Your task to perform on an android device: Go to internet settings Image 0: 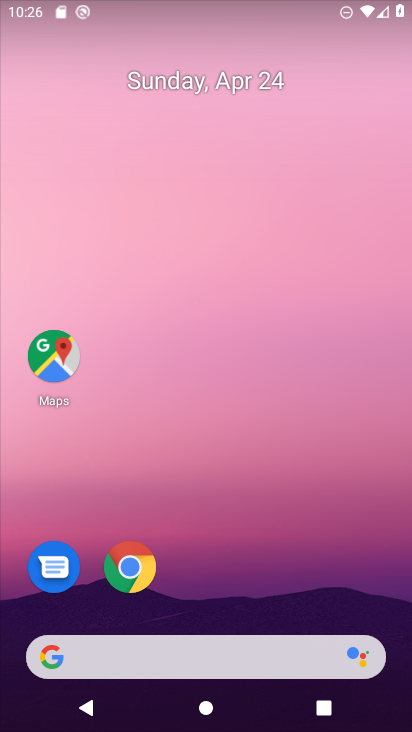
Step 0: drag from (134, 614) to (183, 218)
Your task to perform on an android device: Go to internet settings Image 1: 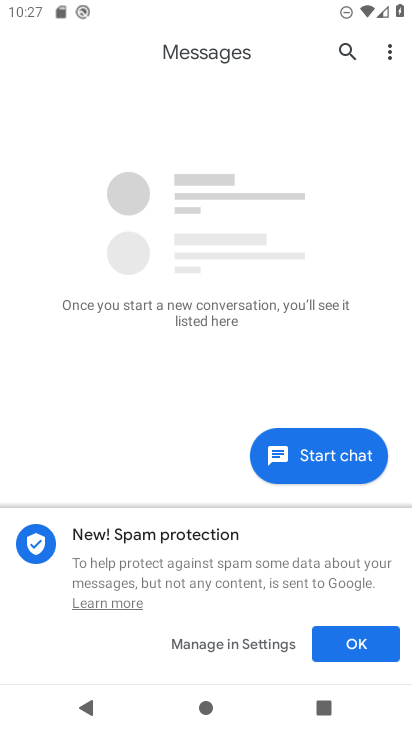
Step 1: press home button
Your task to perform on an android device: Go to internet settings Image 2: 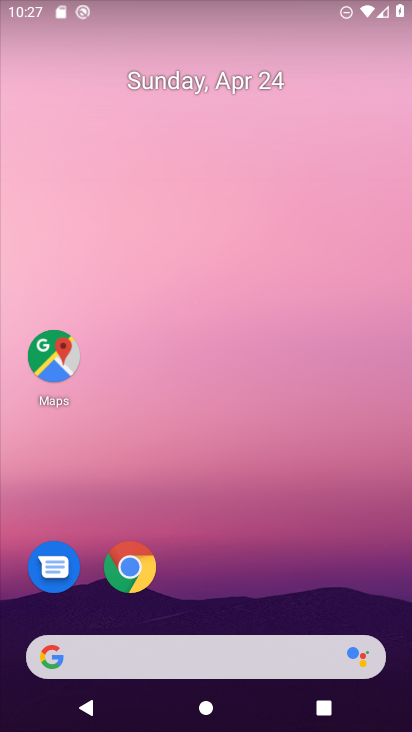
Step 2: drag from (136, 610) to (162, 155)
Your task to perform on an android device: Go to internet settings Image 3: 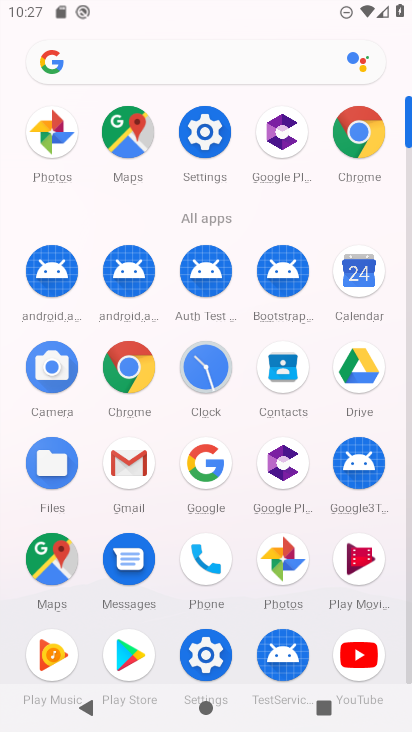
Step 3: drag from (133, 616) to (184, 319)
Your task to perform on an android device: Go to internet settings Image 4: 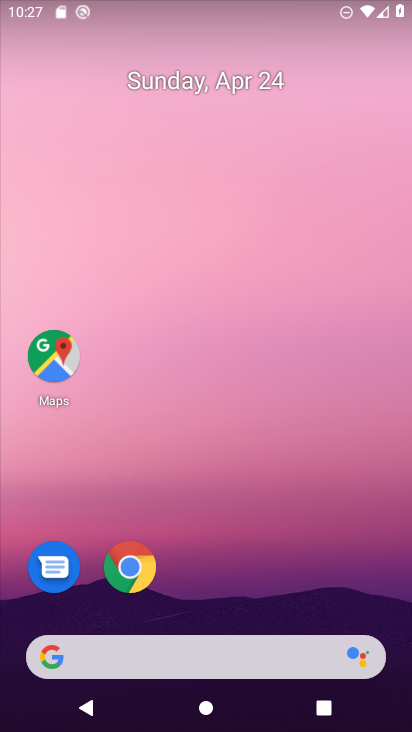
Step 4: drag from (198, 616) to (251, 153)
Your task to perform on an android device: Go to internet settings Image 5: 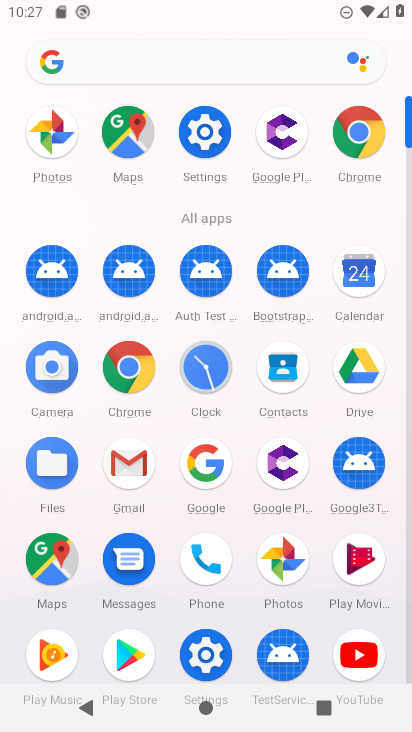
Step 5: click (202, 653)
Your task to perform on an android device: Go to internet settings Image 6: 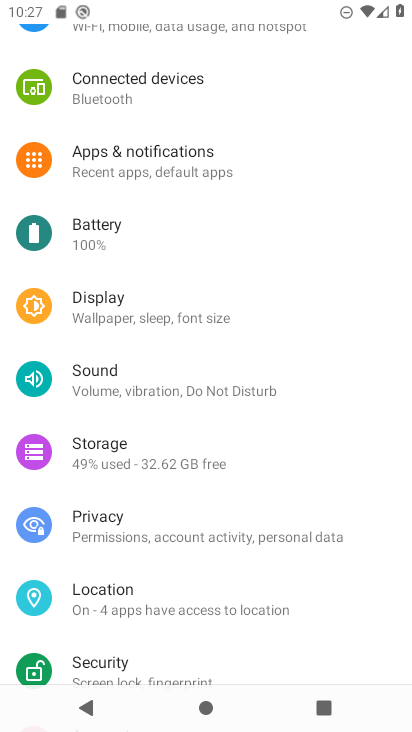
Step 6: drag from (161, 139) to (228, 490)
Your task to perform on an android device: Go to internet settings Image 7: 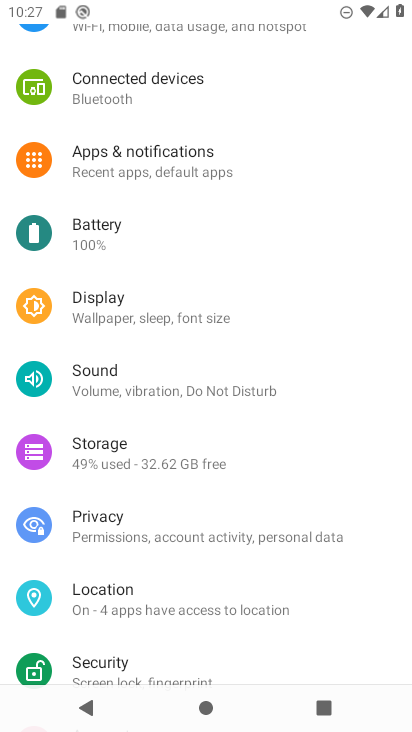
Step 7: drag from (191, 112) to (243, 504)
Your task to perform on an android device: Go to internet settings Image 8: 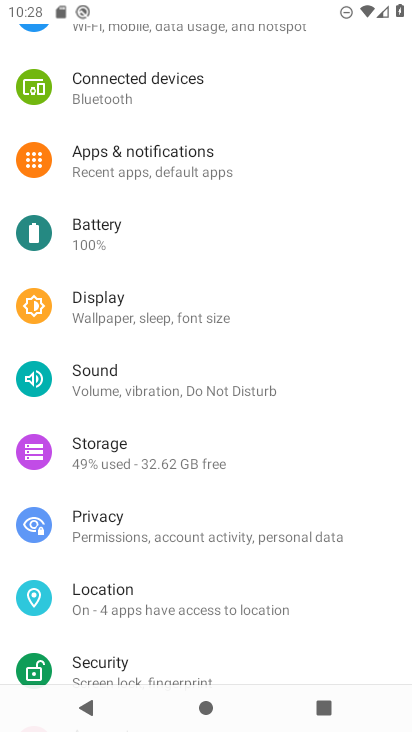
Step 8: drag from (119, 138) to (385, 611)
Your task to perform on an android device: Go to internet settings Image 9: 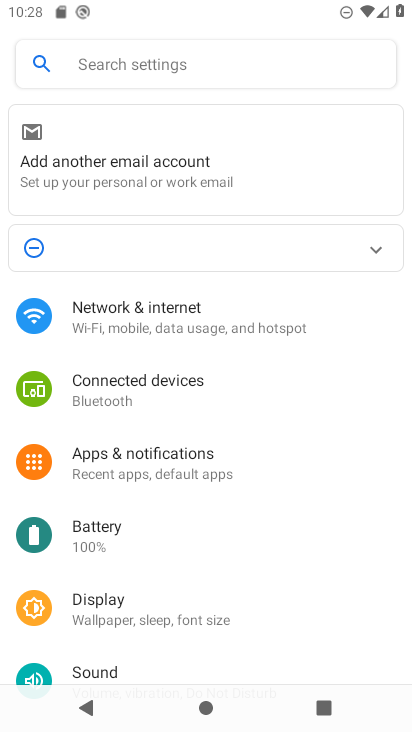
Step 9: click (158, 315)
Your task to perform on an android device: Go to internet settings Image 10: 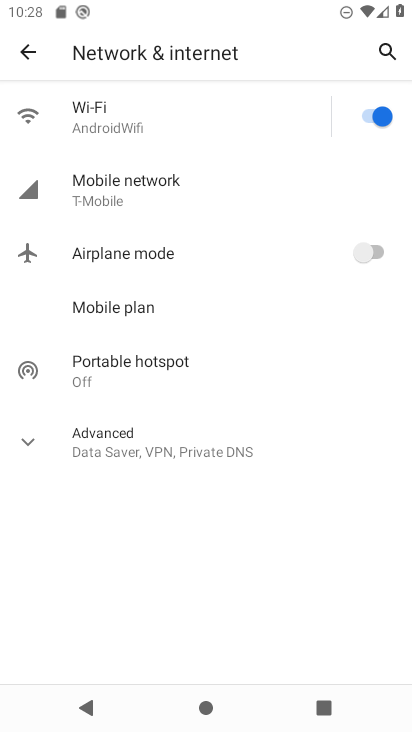
Step 10: press home button
Your task to perform on an android device: Go to internet settings Image 11: 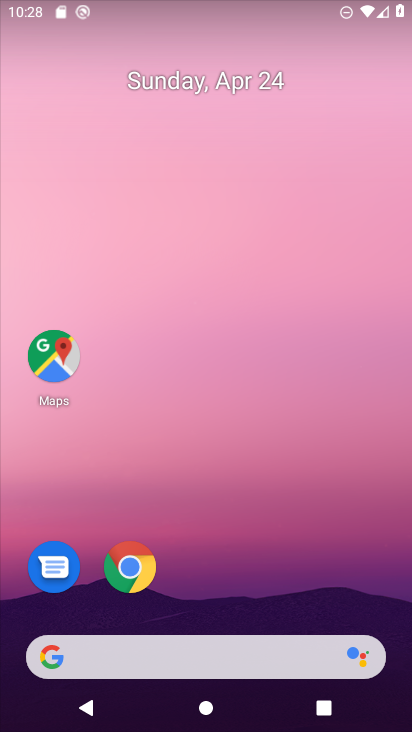
Step 11: drag from (224, 584) to (1, 172)
Your task to perform on an android device: Go to internet settings Image 12: 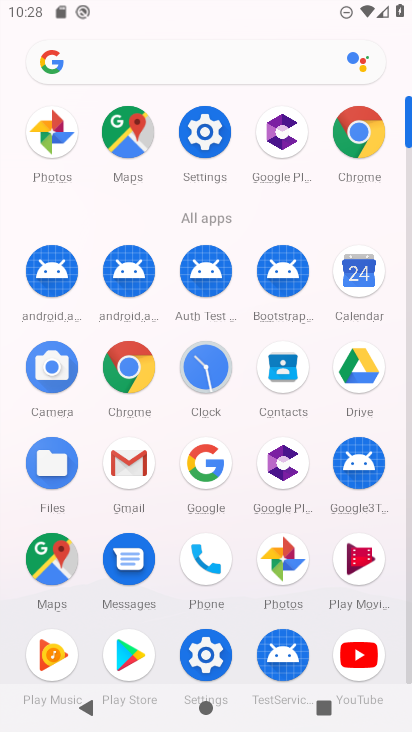
Step 12: click (207, 652)
Your task to perform on an android device: Go to internet settings Image 13: 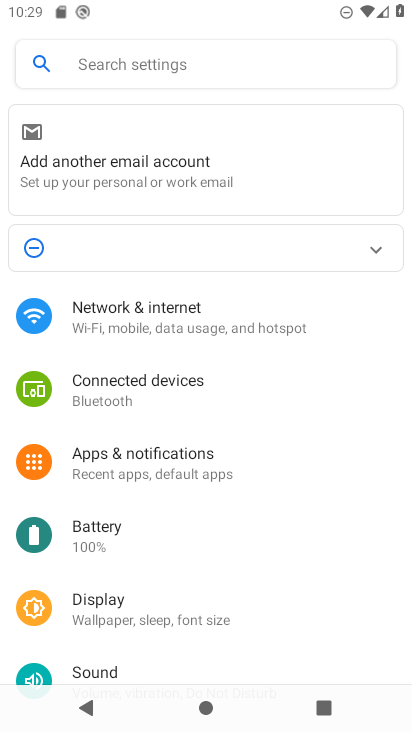
Step 13: click (67, 325)
Your task to perform on an android device: Go to internet settings Image 14: 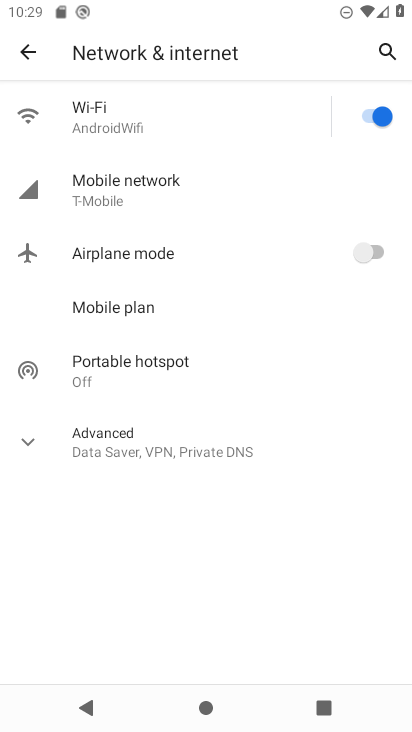
Step 14: task complete